Your task to perform on an android device: Open calendar and show me the third week of next month Image 0: 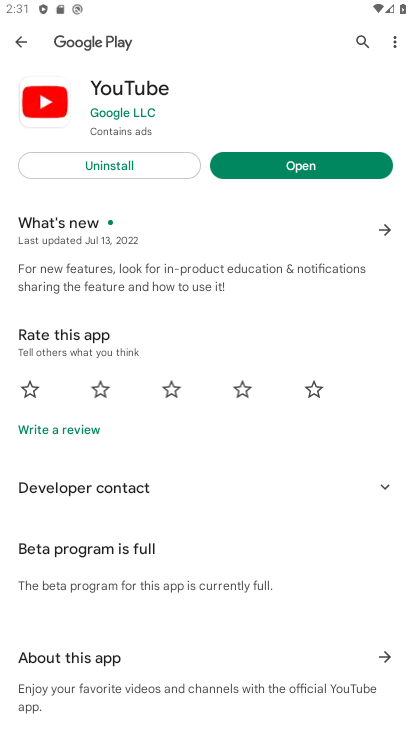
Step 0: press home button
Your task to perform on an android device: Open calendar and show me the third week of next month Image 1: 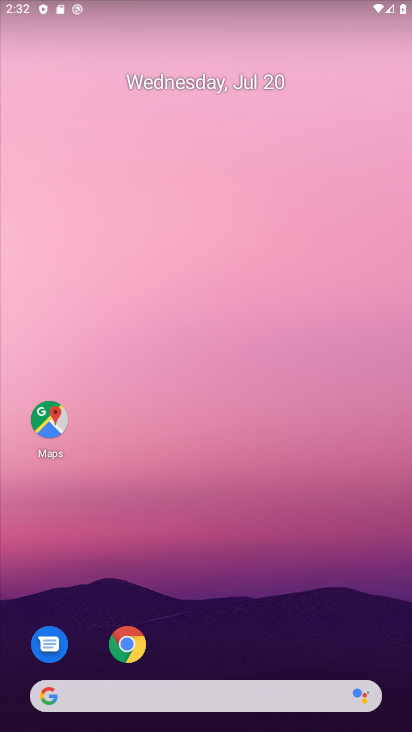
Step 1: drag from (247, 639) to (223, 9)
Your task to perform on an android device: Open calendar and show me the third week of next month Image 2: 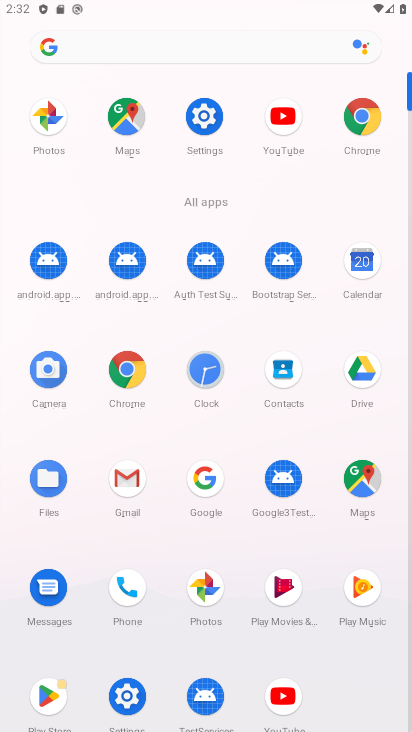
Step 2: click (352, 269)
Your task to perform on an android device: Open calendar and show me the third week of next month Image 3: 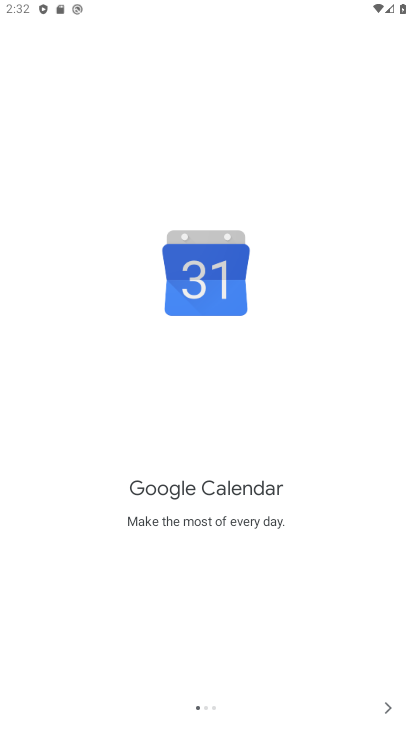
Step 3: click (383, 720)
Your task to perform on an android device: Open calendar and show me the third week of next month Image 4: 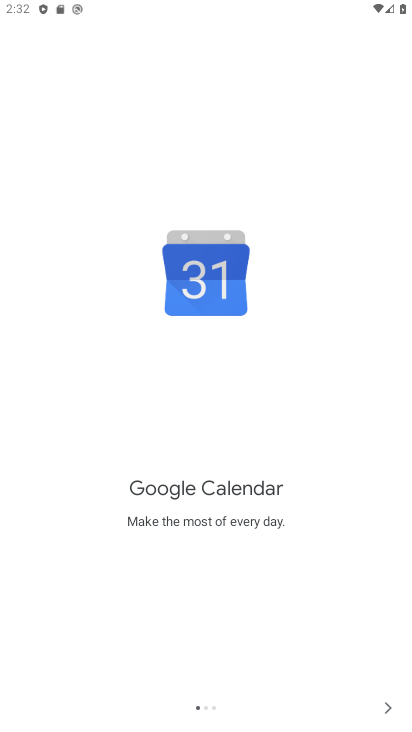
Step 4: click (383, 720)
Your task to perform on an android device: Open calendar and show me the third week of next month Image 5: 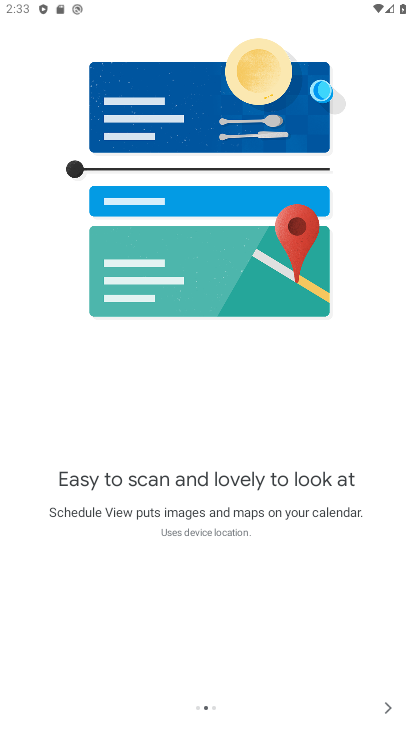
Step 5: task complete